Your task to perform on an android device: Open location settings Image 0: 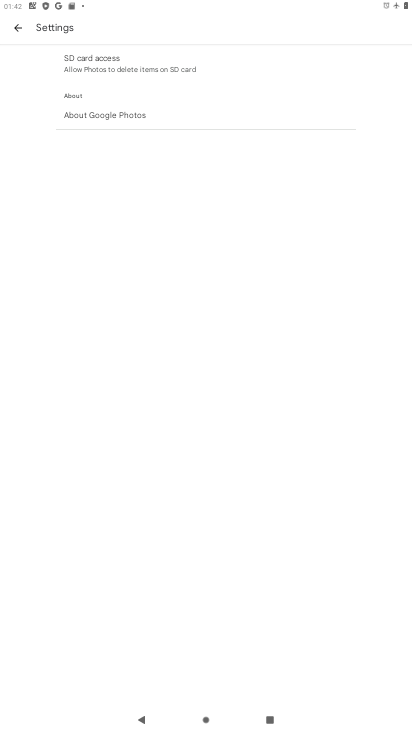
Step 0: press home button
Your task to perform on an android device: Open location settings Image 1: 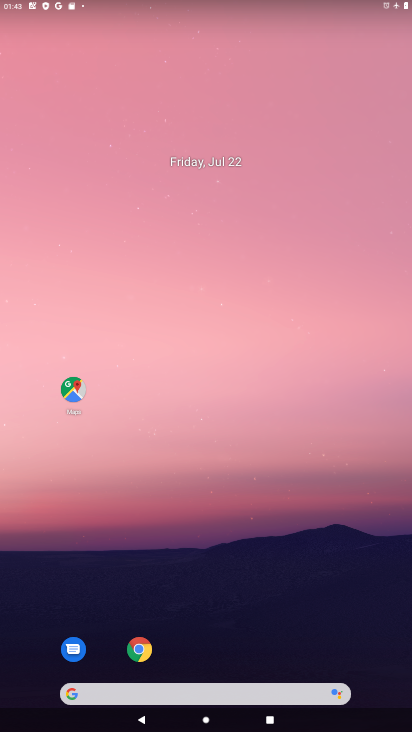
Step 1: drag from (220, 513) to (228, 120)
Your task to perform on an android device: Open location settings Image 2: 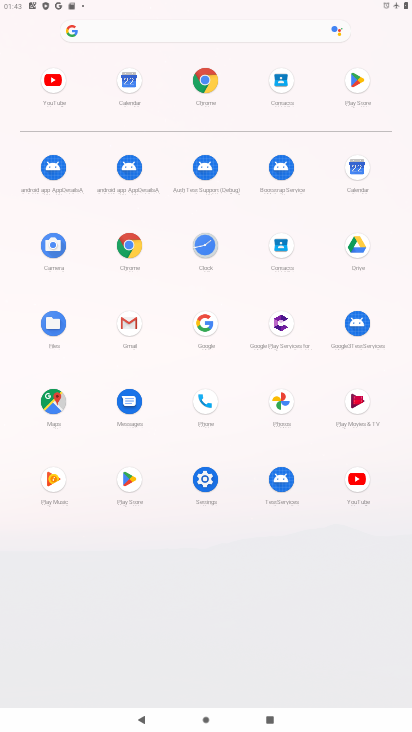
Step 2: click (198, 469)
Your task to perform on an android device: Open location settings Image 3: 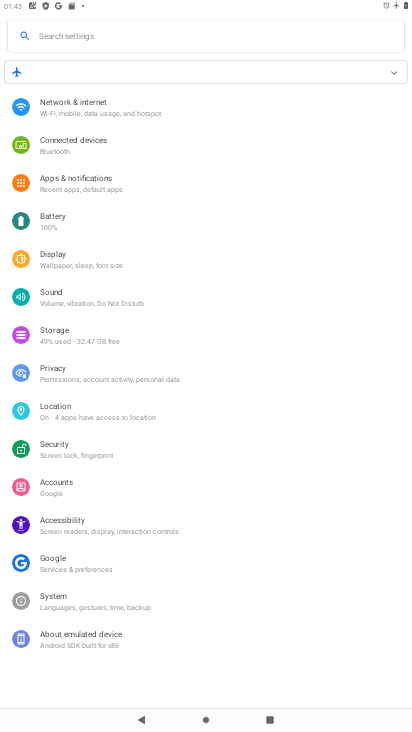
Step 3: click (44, 406)
Your task to perform on an android device: Open location settings Image 4: 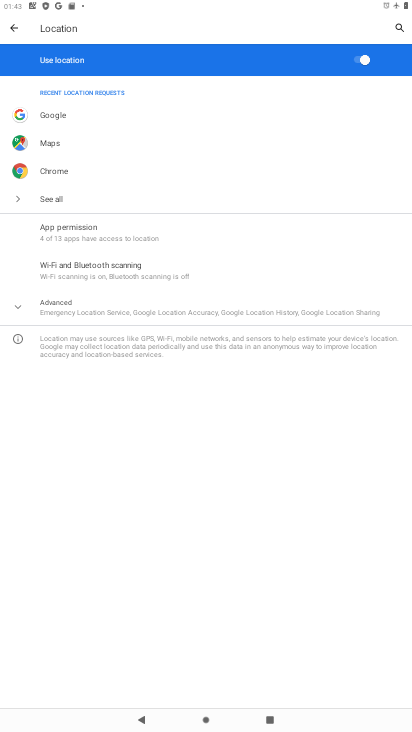
Step 4: task complete